Your task to perform on an android device: Go to wifi settings Image 0: 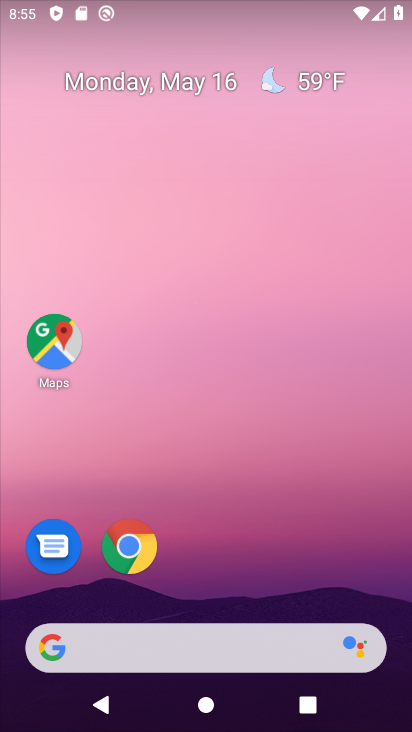
Step 0: drag from (157, 11) to (91, 282)
Your task to perform on an android device: Go to wifi settings Image 1: 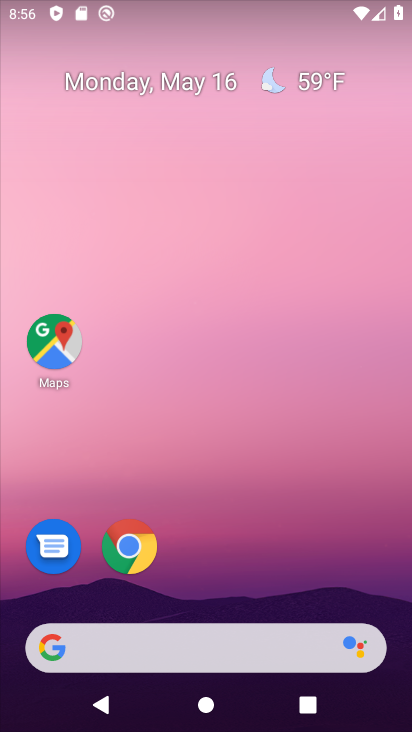
Step 1: drag from (149, 11) to (335, 495)
Your task to perform on an android device: Go to wifi settings Image 2: 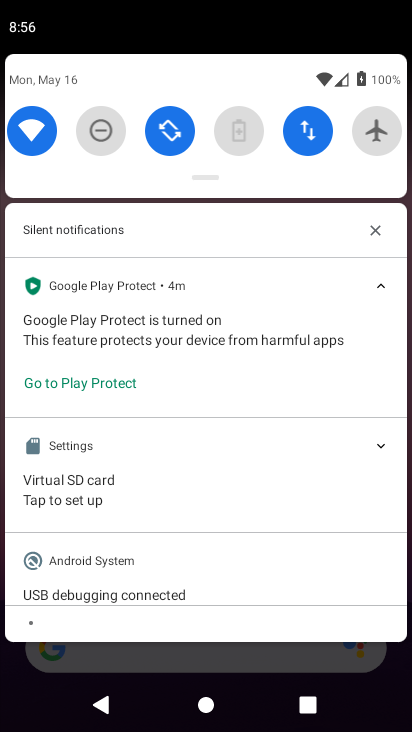
Step 2: click (31, 116)
Your task to perform on an android device: Go to wifi settings Image 3: 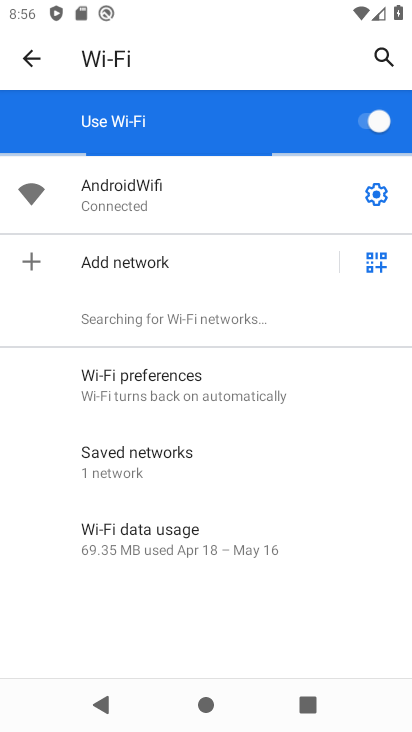
Step 3: task complete